Your task to perform on an android device: Go to Google Image 0: 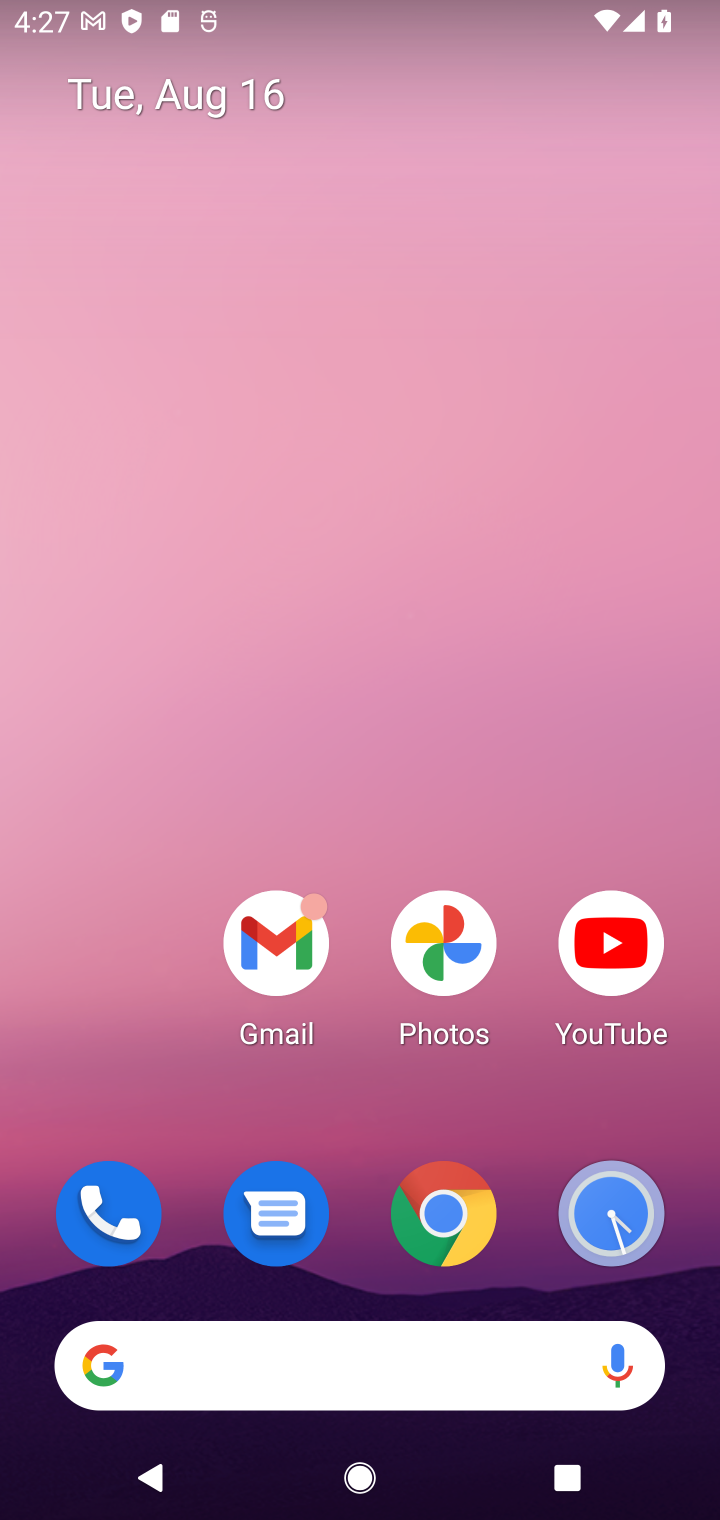
Step 0: drag from (407, 787) to (425, 4)
Your task to perform on an android device: Go to Google Image 1: 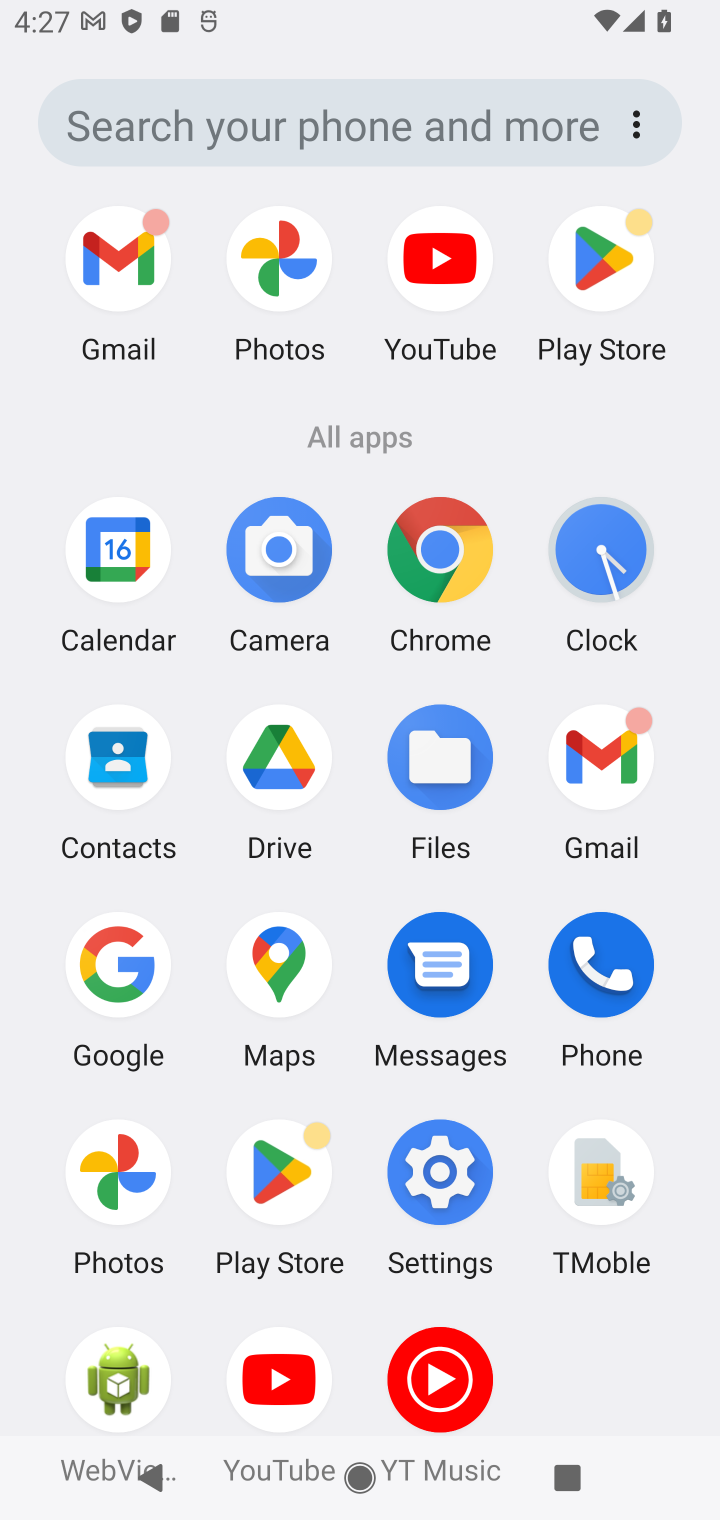
Step 1: click (107, 979)
Your task to perform on an android device: Go to Google Image 2: 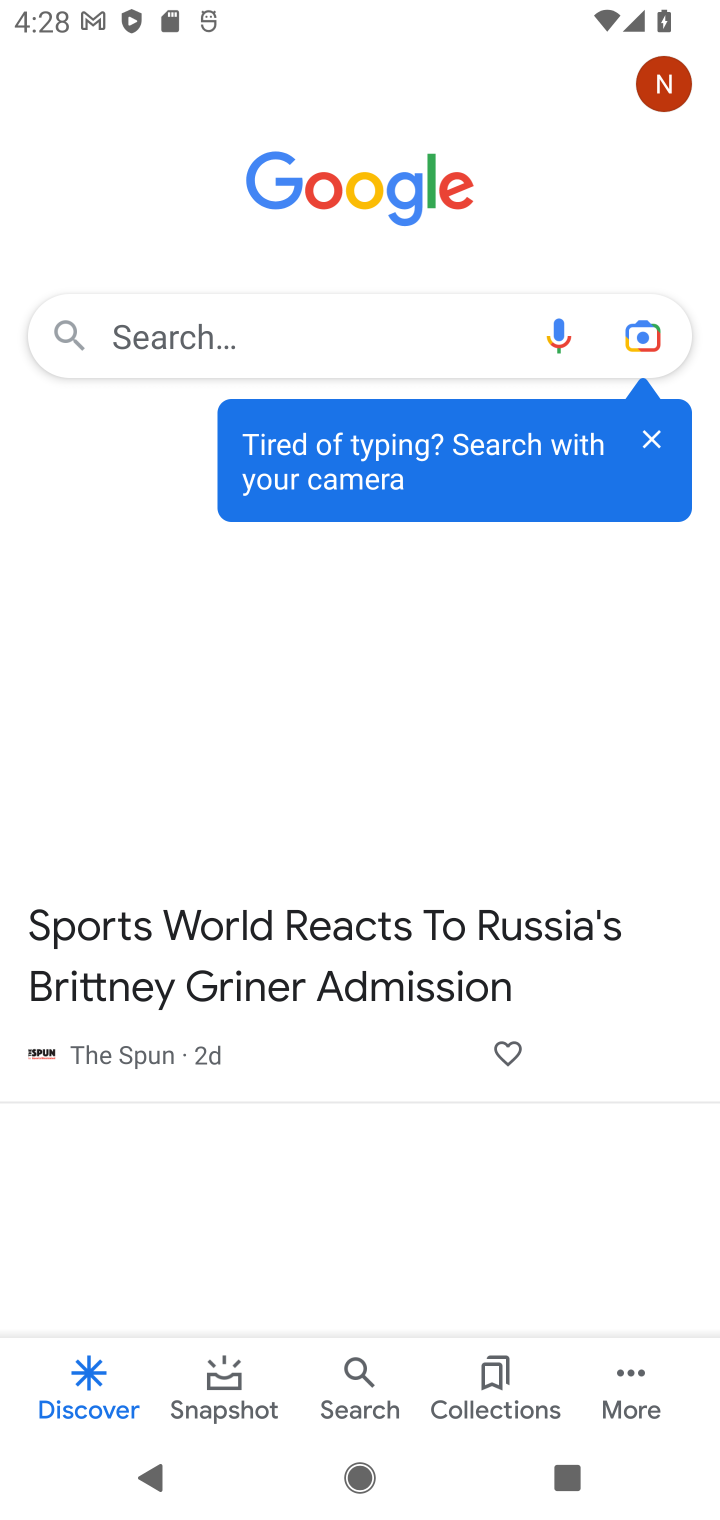
Step 2: task complete